Your task to perform on an android device: open a new tab in the chrome app Image 0: 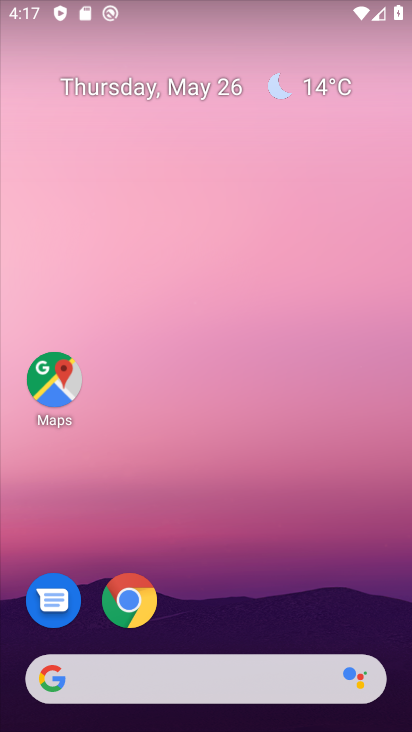
Step 0: click (127, 599)
Your task to perform on an android device: open a new tab in the chrome app Image 1: 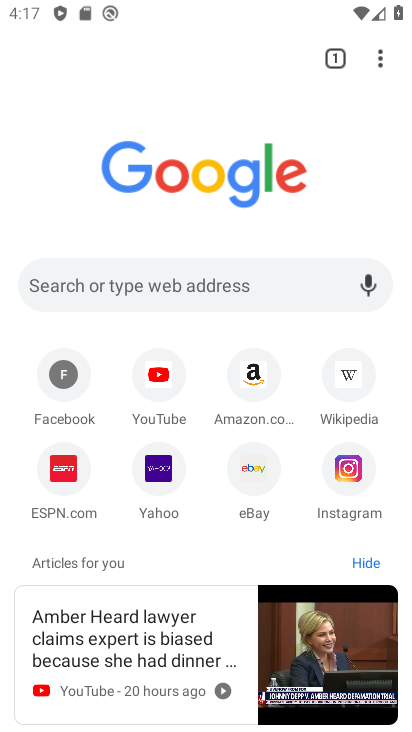
Step 1: click (386, 54)
Your task to perform on an android device: open a new tab in the chrome app Image 2: 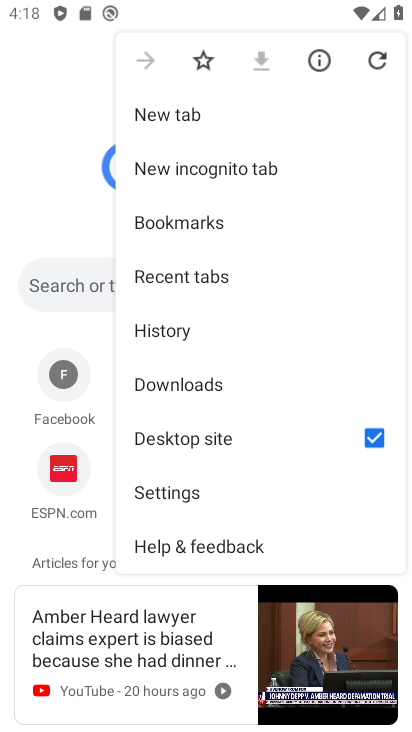
Step 2: click (158, 127)
Your task to perform on an android device: open a new tab in the chrome app Image 3: 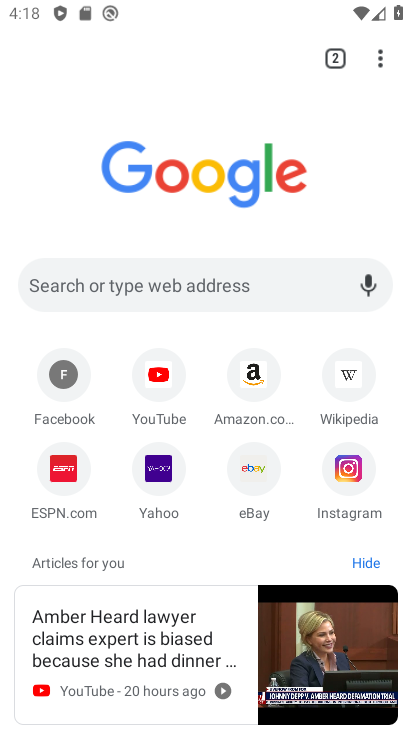
Step 3: click (387, 51)
Your task to perform on an android device: open a new tab in the chrome app Image 4: 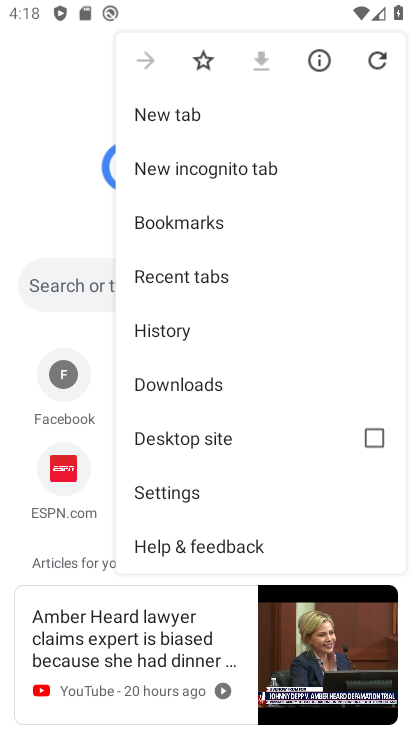
Step 4: click (155, 97)
Your task to perform on an android device: open a new tab in the chrome app Image 5: 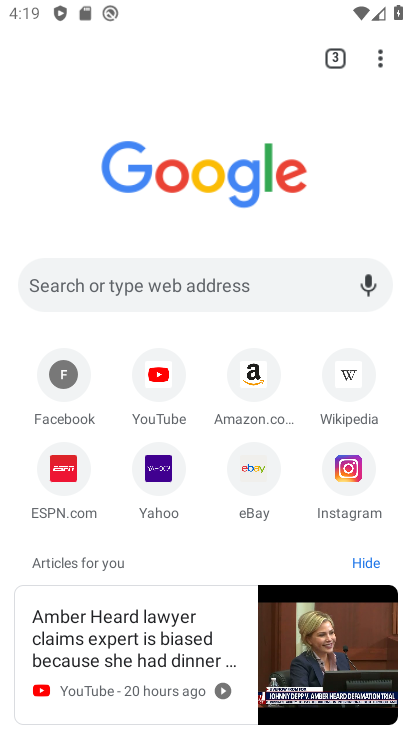
Step 5: task complete